Your task to perform on an android device: see creations saved in the google photos Image 0: 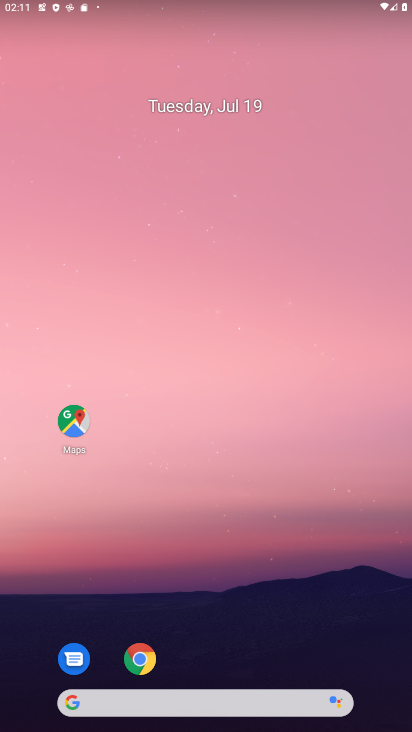
Step 0: press home button
Your task to perform on an android device: see creations saved in the google photos Image 1: 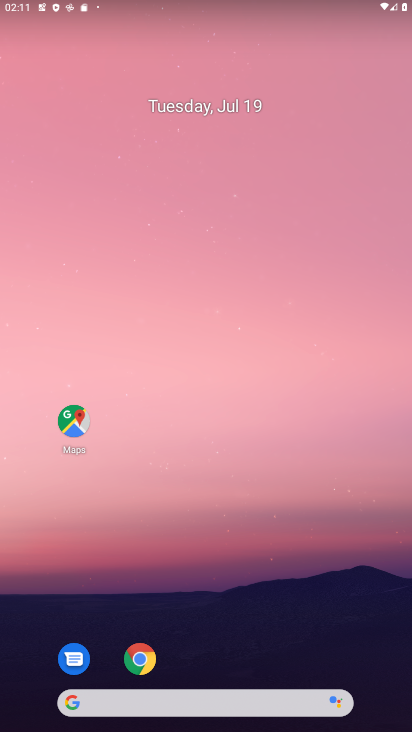
Step 1: drag from (288, 620) to (308, 103)
Your task to perform on an android device: see creations saved in the google photos Image 2: 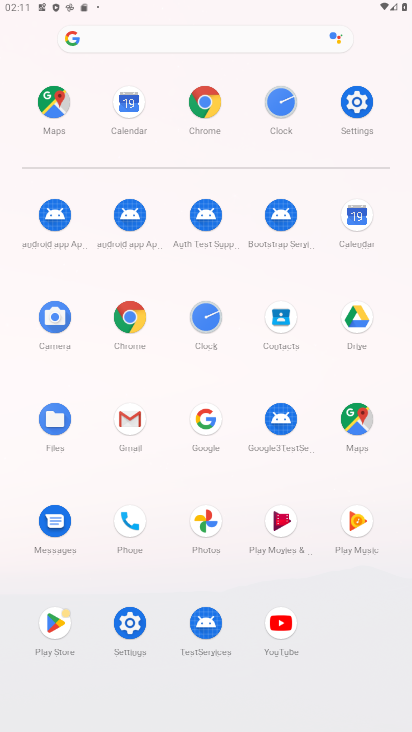
Step 2: click (197, 547)
Your task to perform on an android device: see creations saved in the google photos Image 3: 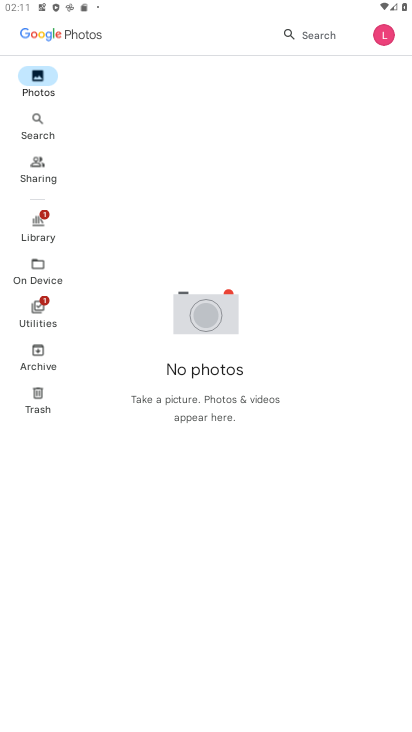
Step 3: click (292, 34)
Your task to perform on an android device: see creations saved in the google photos Image 4: 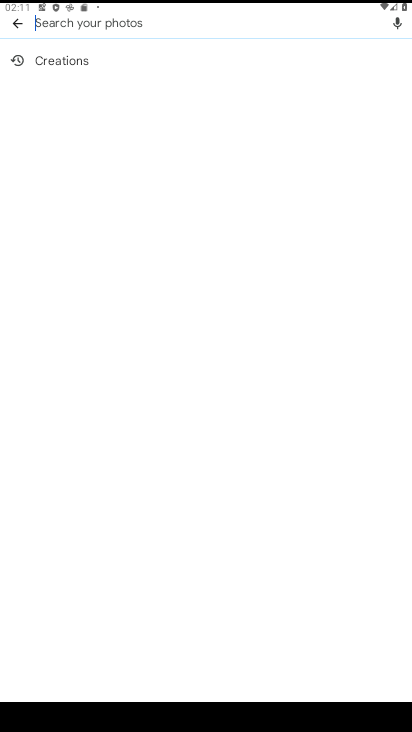
Step 4: type "Yahoo.com"
Your task to perform on an android device: see creations saved in the google photos Image 5: 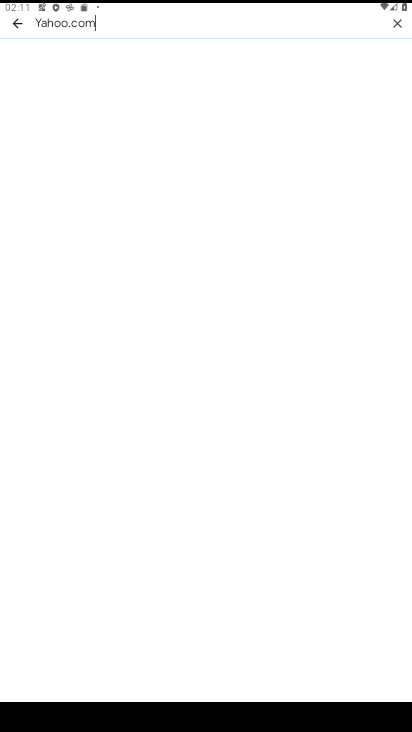
Step 5: type ""
Your task to perform on an android device: see creations saved in the google photos Image 6: 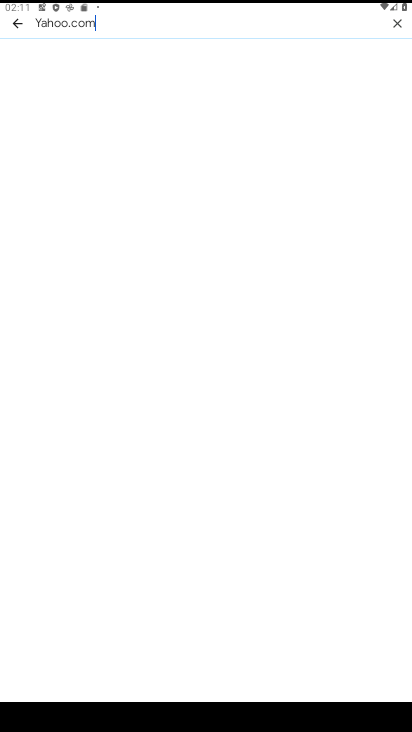
Step 6: click (12, 26)
Your task to perform on an android device: see creations saved in the google photos Image 7: 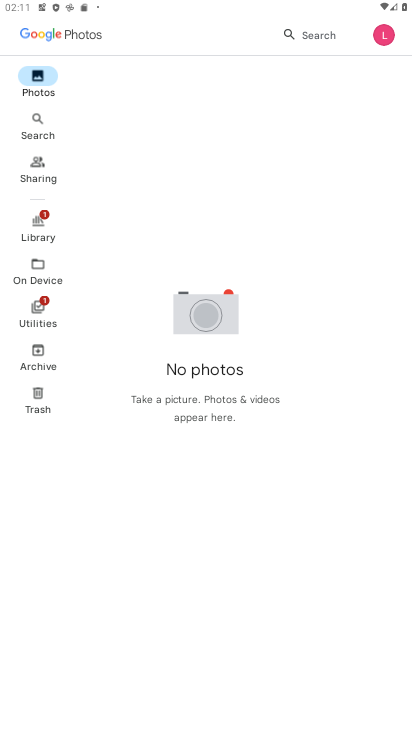
Step 7: click (337, 37)
Your task to perform on an android device: see creations saved in the google photos Image 8: 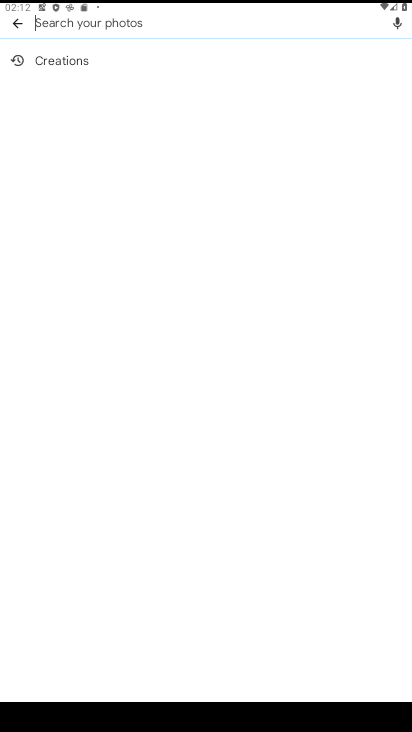
Step 8: click (121, 72)
Your task to perform on an android device: see creations saved in the google photos Image 9: 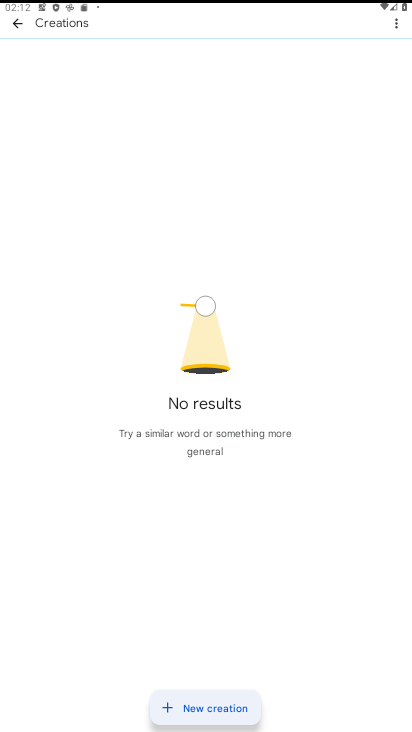
Step 9: task complete